Your task to perform on an android device: add a label to a message in the gmail app Image 0: 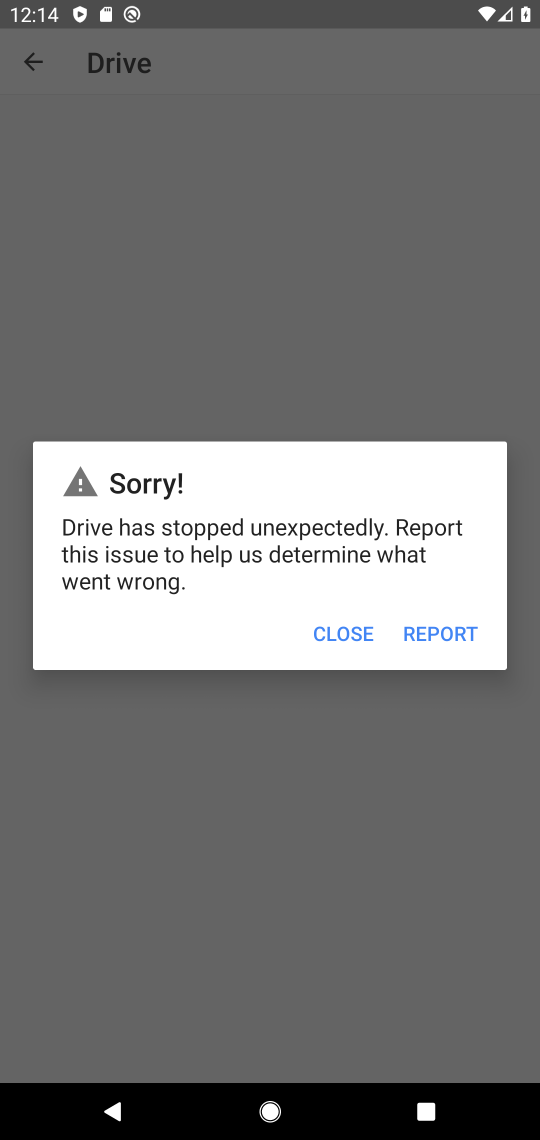
Step 0: press back button
Your task to perform on an android device: add a label to a message in the gmail app Image 1: 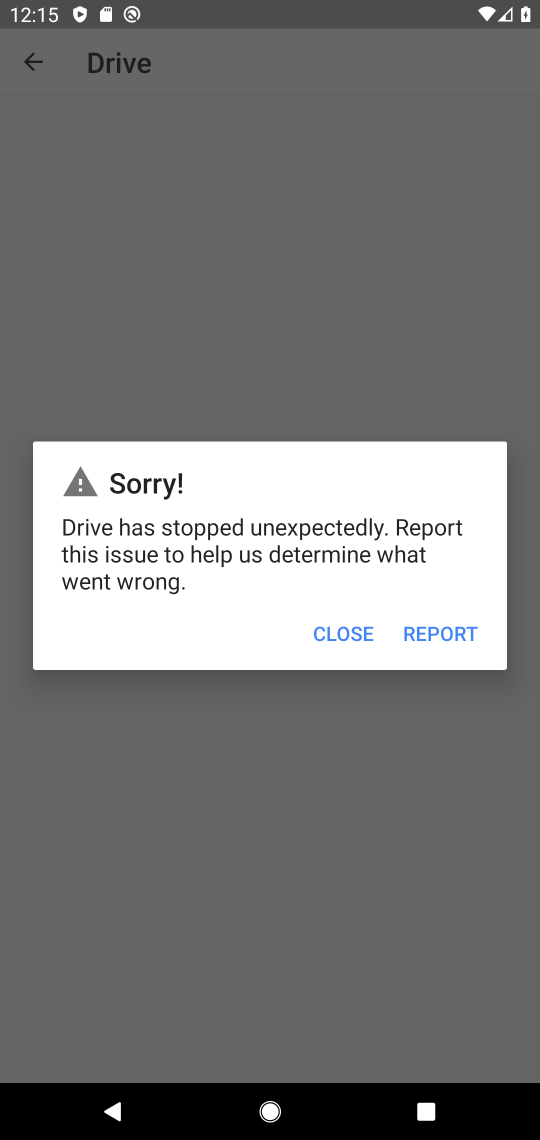
Step 1: press home button
Your task to perform on an android device: add a label to a message in the gmail app Image 2: 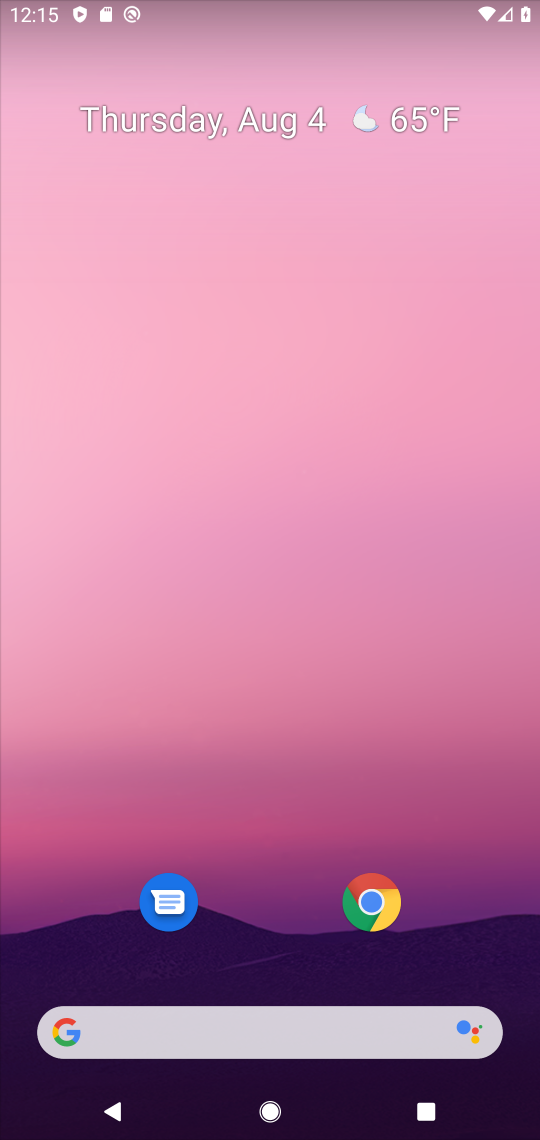
Step 2: drag from (487, 956) to (438, 229)
Your task to perform on an android device: add a label to a message in the gmail app Image 3: 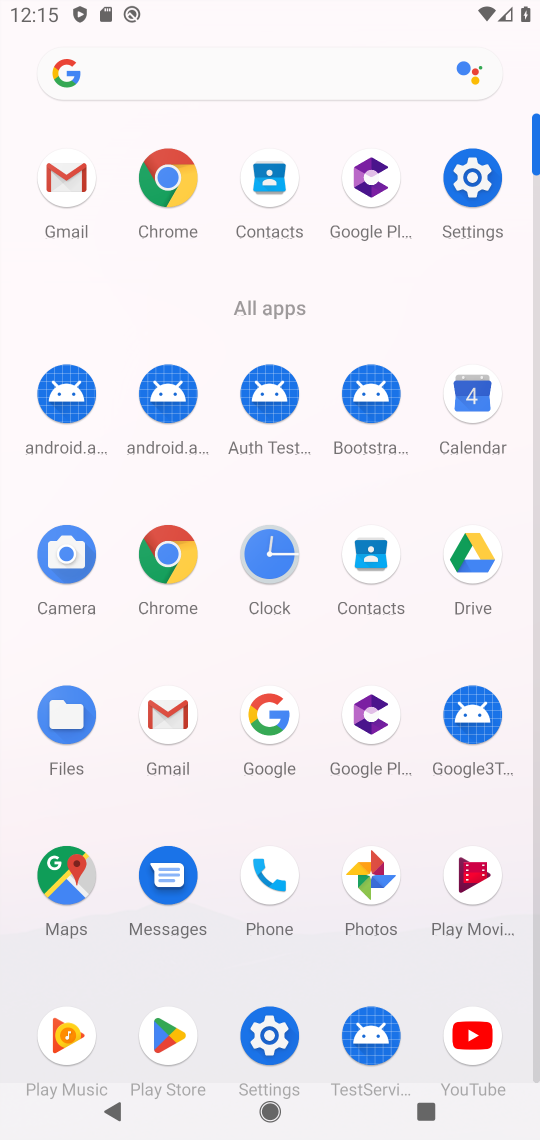
Step 3: click (167, 714)
Your task to perform on an android device: add a label to a message in the gmail app Image 4: 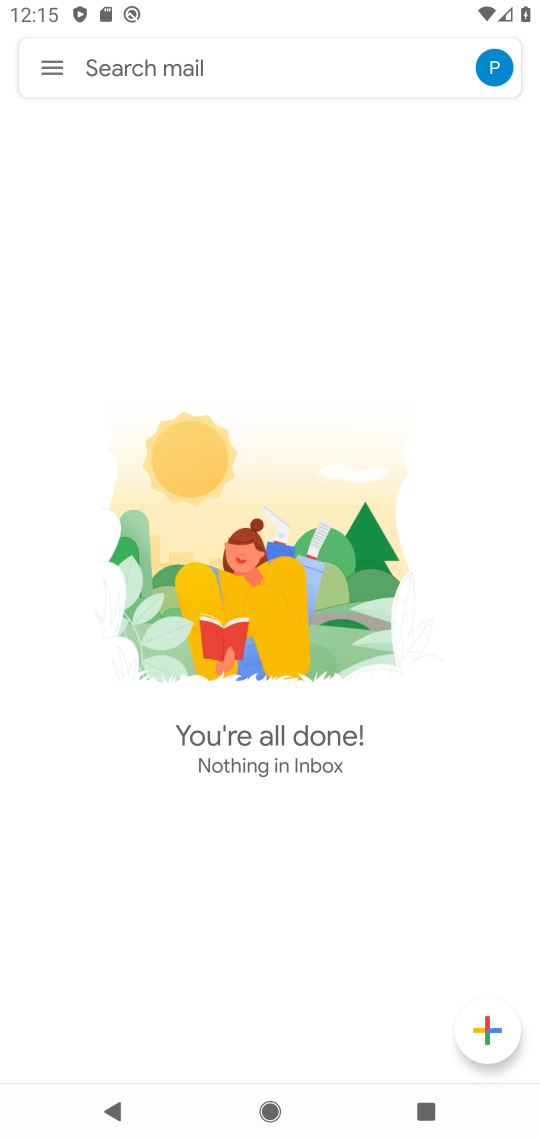
Step 4: click (167, 714)
Your task to perform on an android device: add a label to a message in the gmail app Image 5: 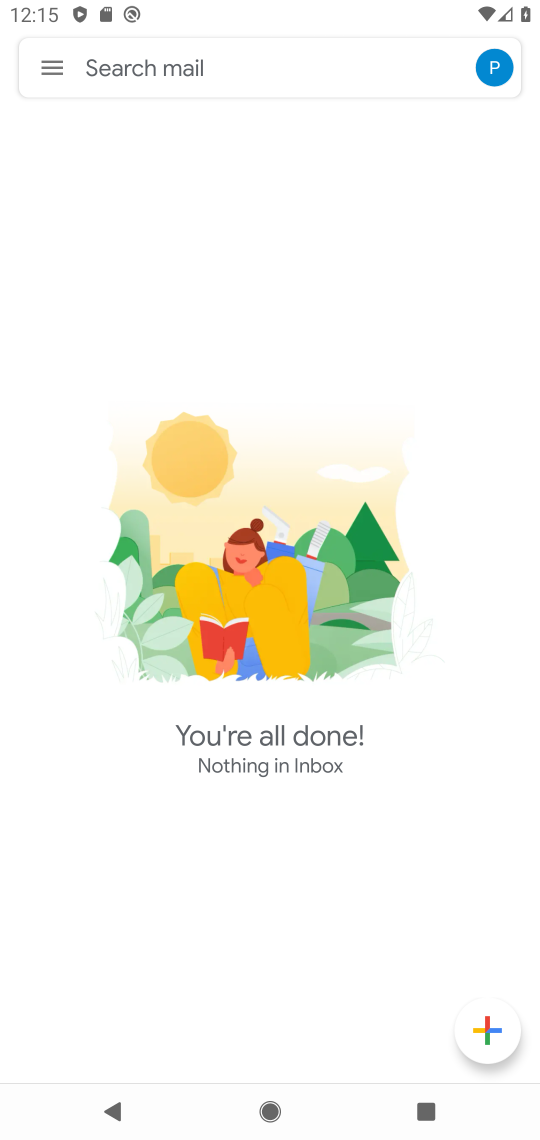
Step 5: click (56, 69)
Your task to perform on an android device: add a label to a message in the gmail app Image 6: 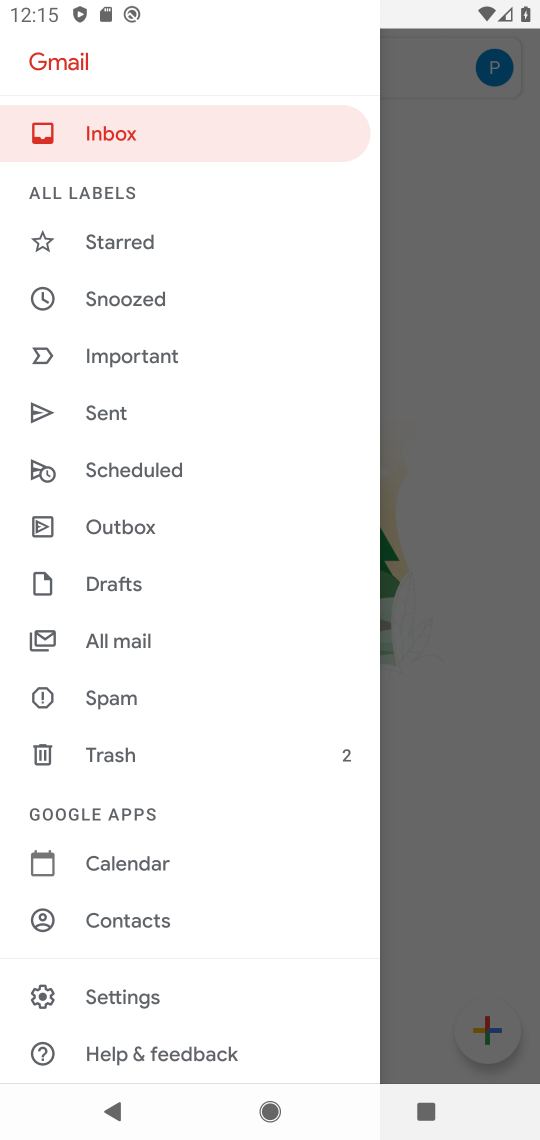
Step 6: click (124, 640)
Your task to perform on an android device: add a label to a message in the gmail app Image 7: 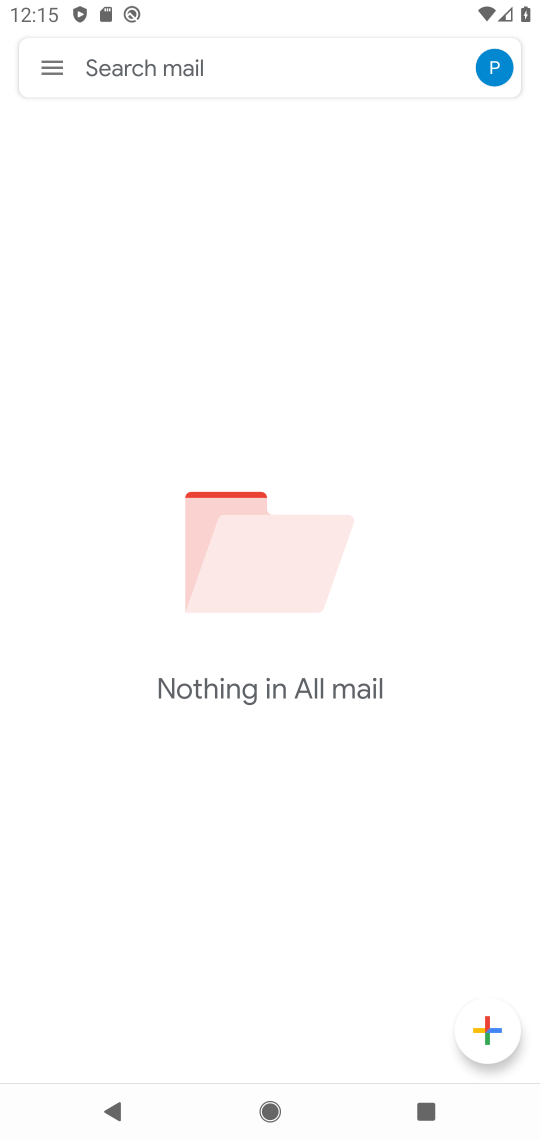
Step 7: task complete